Your task to perform on an android device: change text size in settings app Image 0: 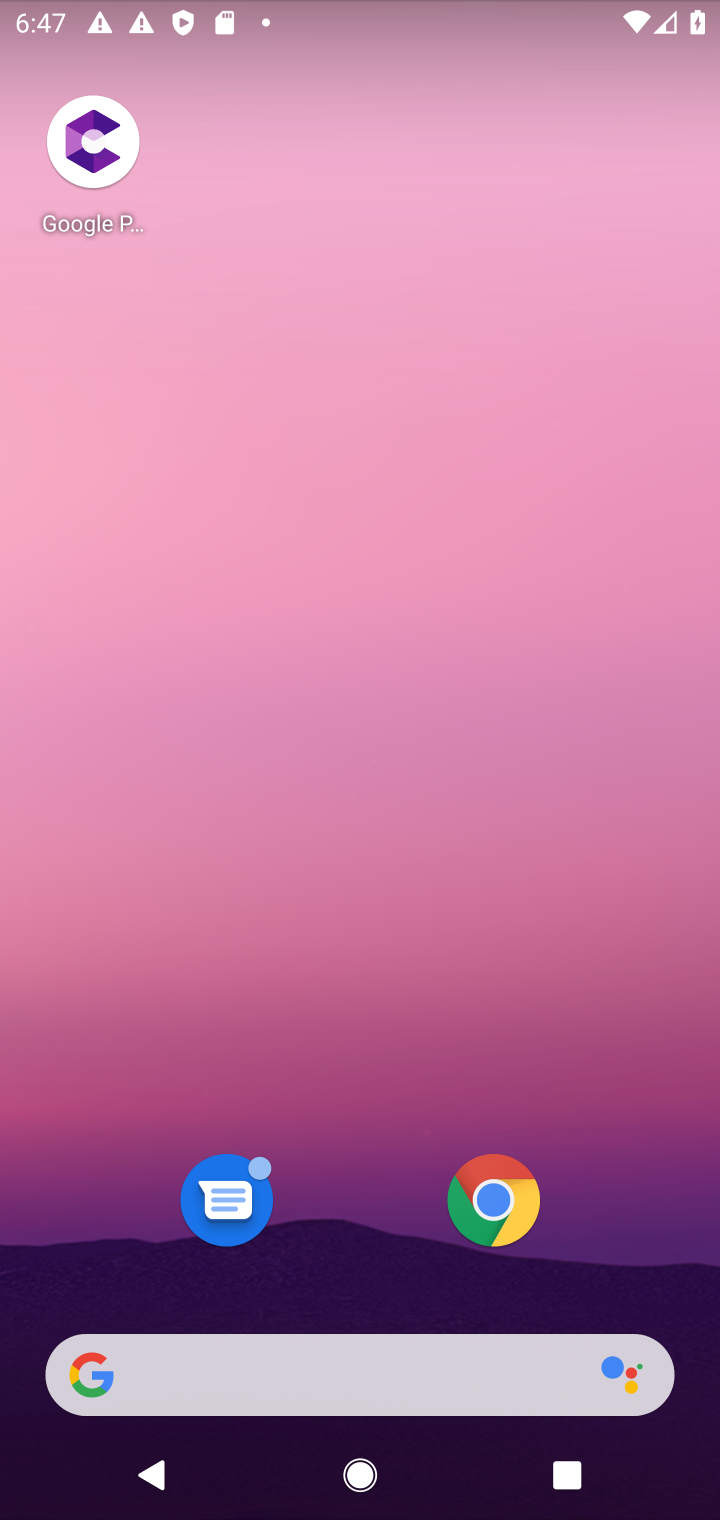
Step 0: drag from (630, 1188) to (465, 161)
Your task to perform on an android device: change text size in settings app Image 1: 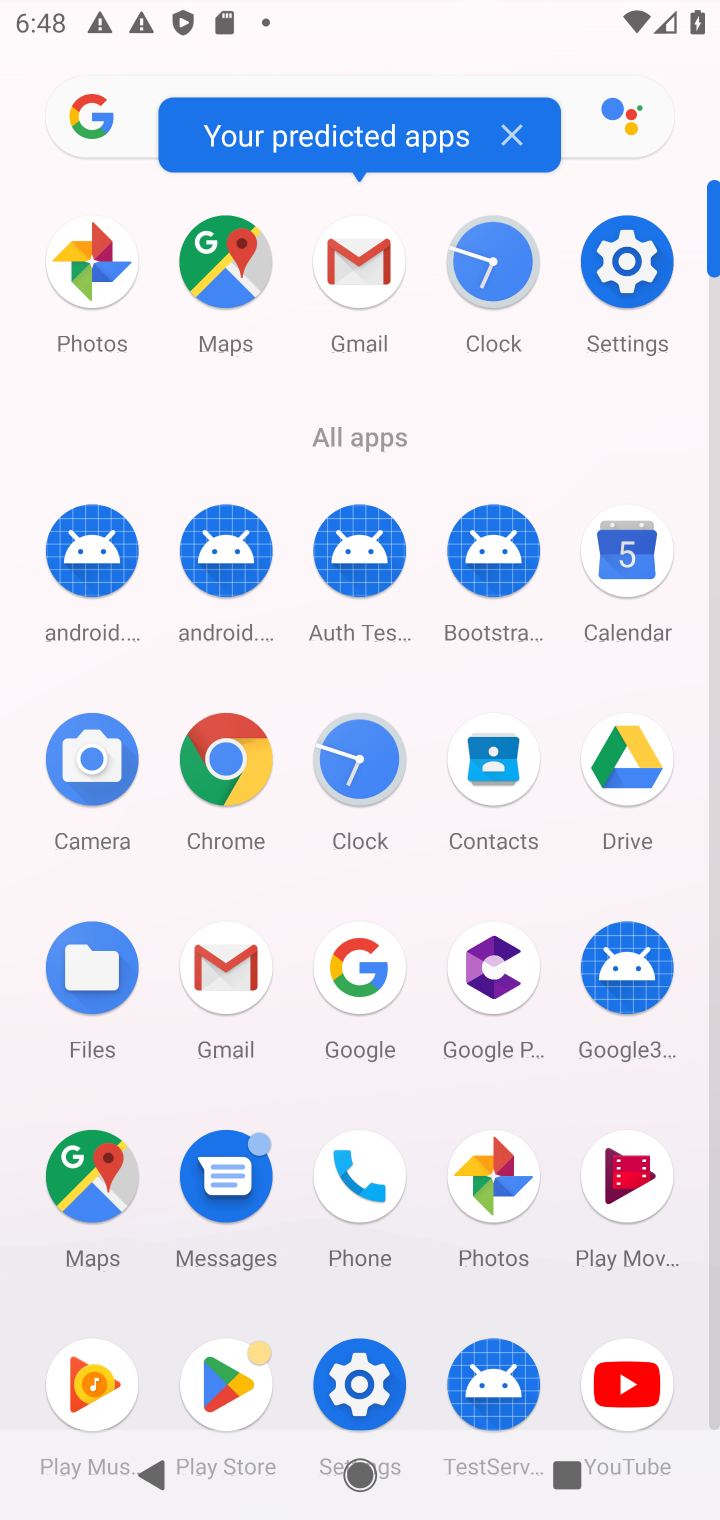
Step 1: click (371, 1335)
Your task to perform on an android device: change text size in settings app Image 2: 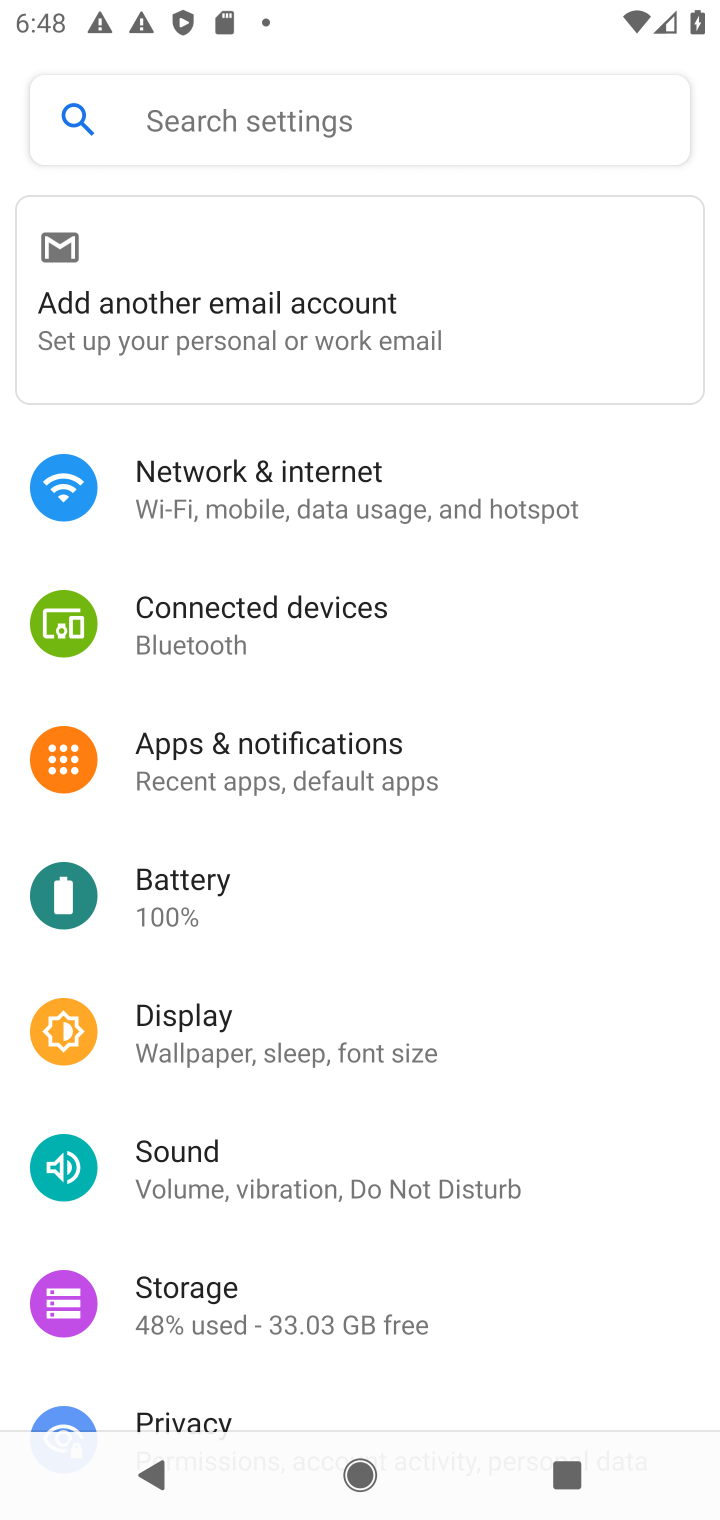
Step 2: click (265, 1030)
Your task to perform on an android device: change text size in settings app Image 3: 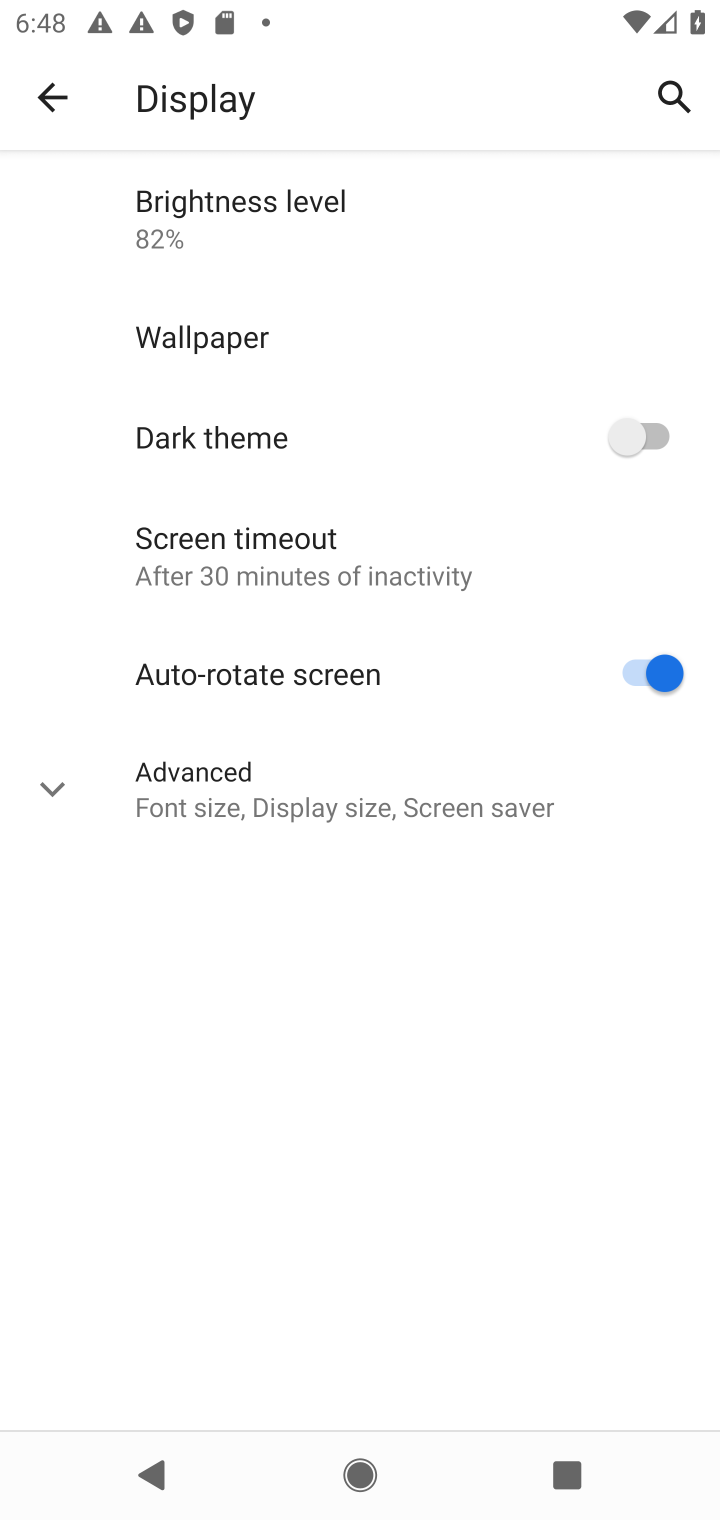
Step 3: click (334, 790)
Your task to perform on an android device: change text size in settings app Image 4: 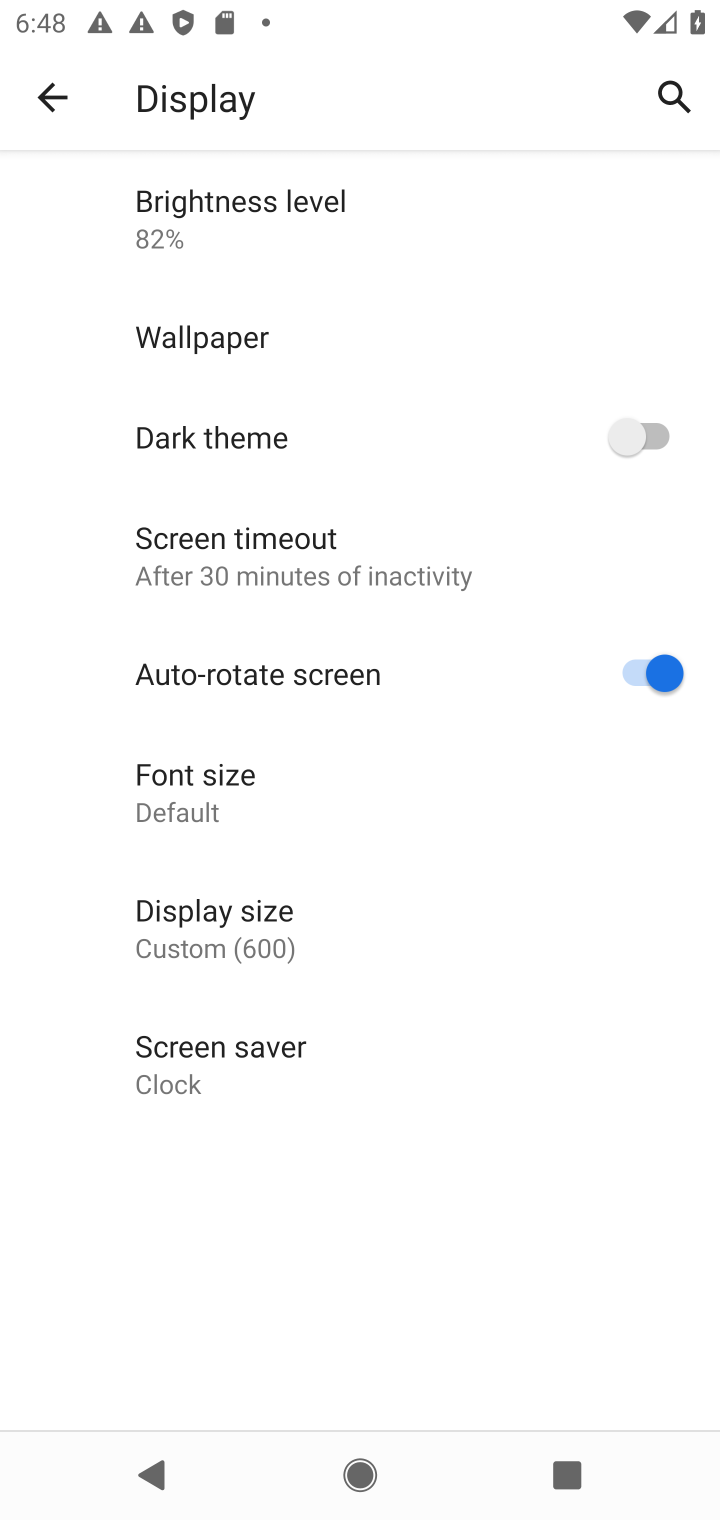
Step 4: click (283, 792)
Your task to perform on an android device: change text size in settings app Image 5: 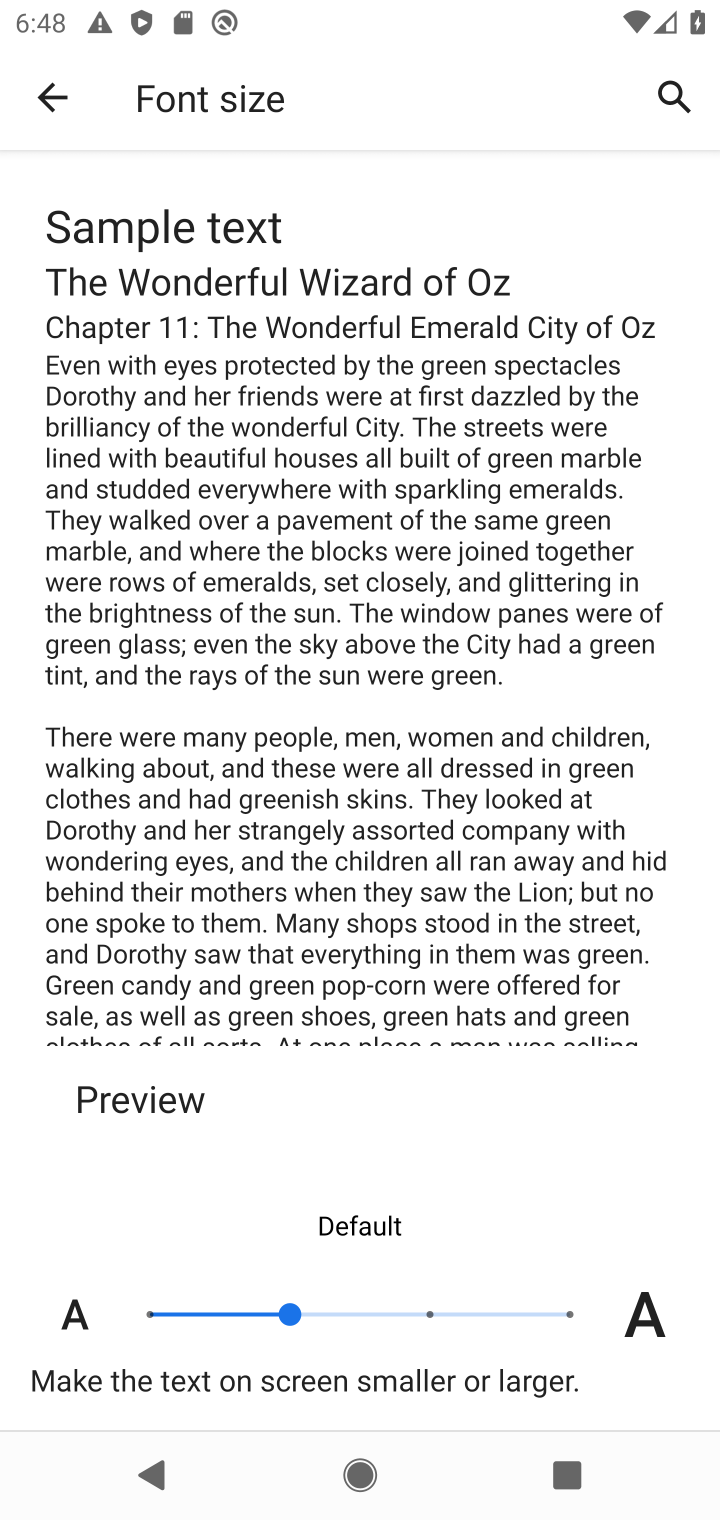
Step 5: click (449, 1309)
Your task to perform on an android device: change text size in settings app Image 6: 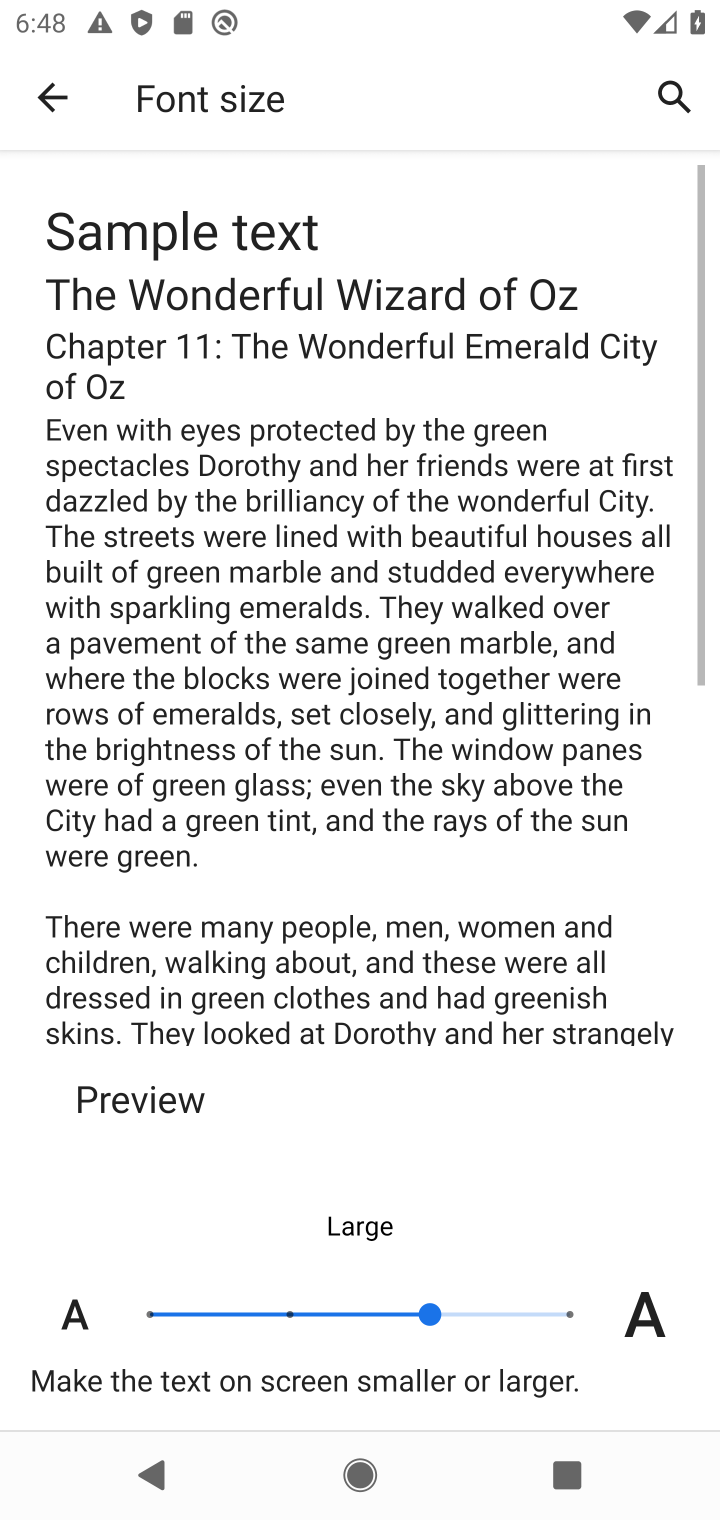
Step 6: click (410, 1301)
Your task to perform on an android device: change text size in settings app Image 7: 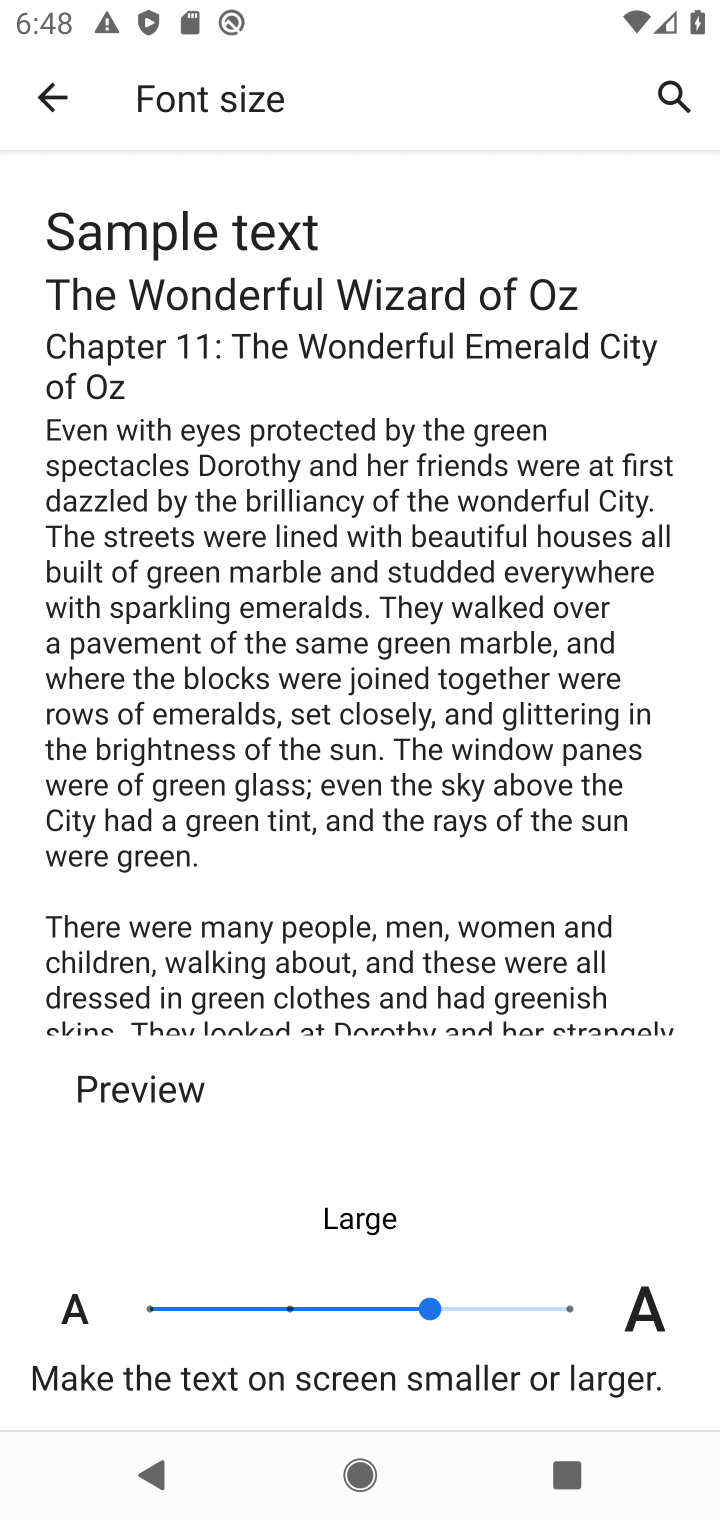
Step 7: task complete